Your task to perform on an android device: change timer sound Image 0: 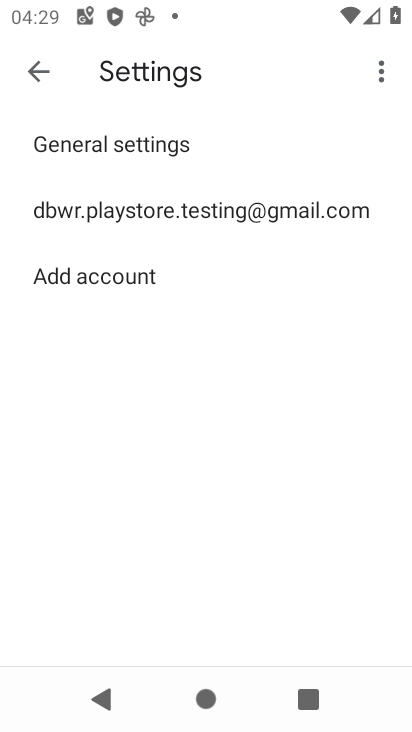
Step 0: press home button
Your task to perform on an android device: change timer sound Image 1: 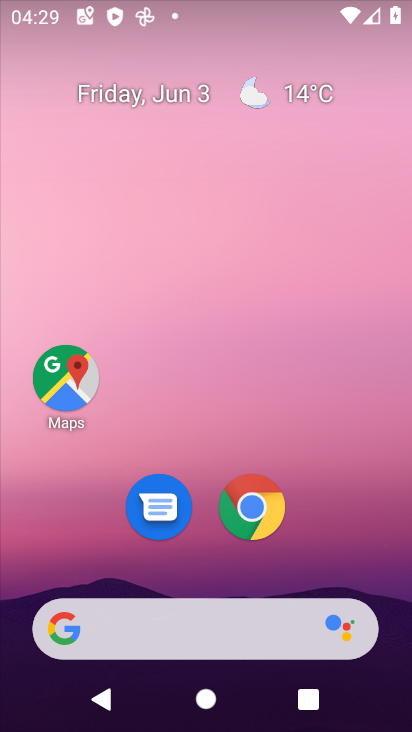
Step 1: drag from (348, 545) to (270, 24)
Your task to perform on an android device: change timer sound Image 2: 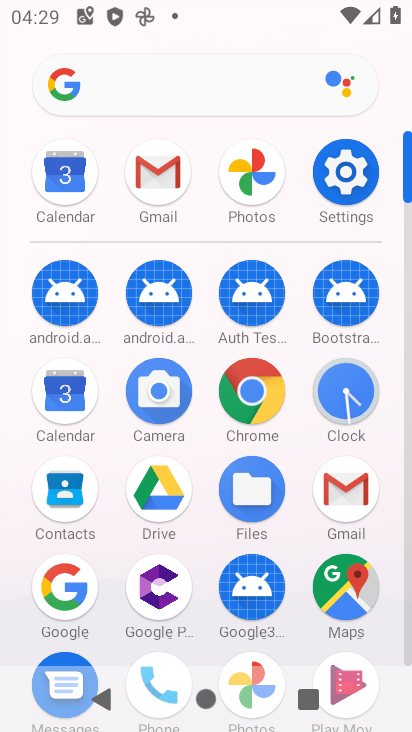
Step 2: click (348, 400)
Your task to perform on an android device: change timer sound Image 3: 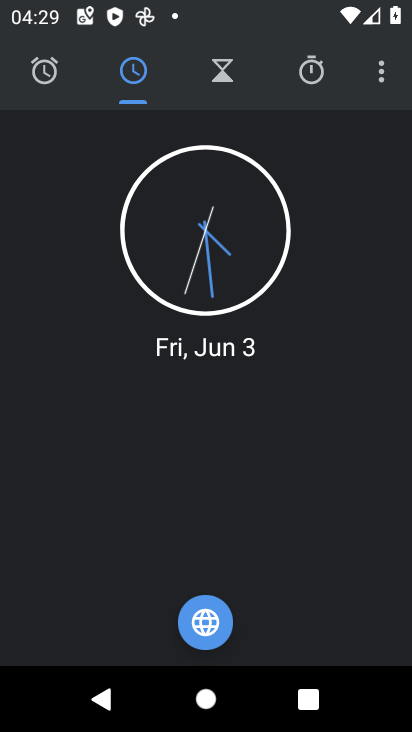
Step 3: click (375, 62)
Your task to perform on an android device: change timer sound Image 4: 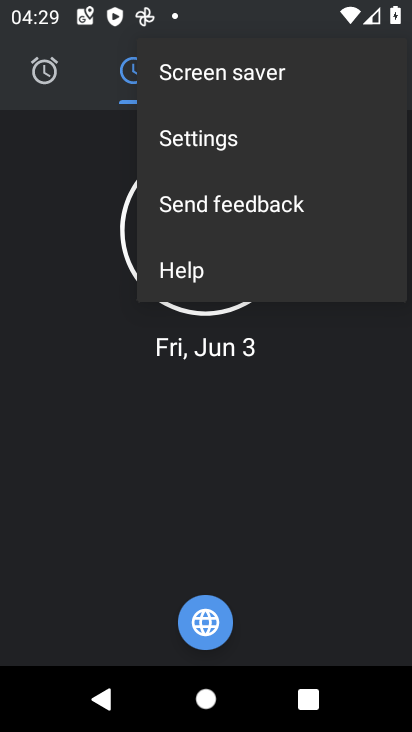
Step 4: click (211, 143)
Your task to perform on an android device: change timer sound Image 5: 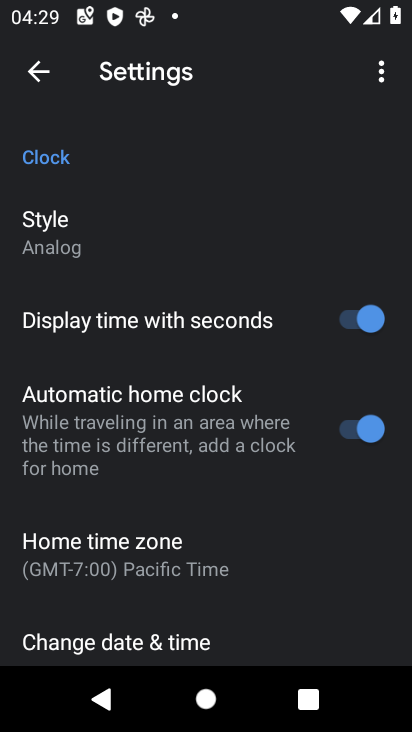
Step 5: drag from (311, 579) to (267, 139)
Your task to perform on an android device: change timer sound Image 6: 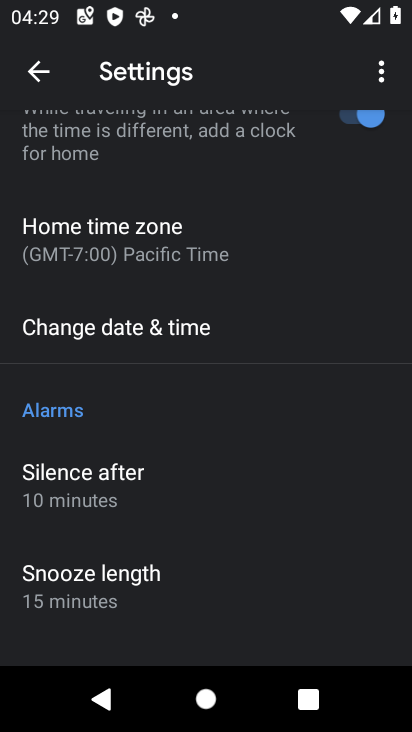
Step 6: drag from (325, 596) to (243, 22)
Your task to perform on an android device: change timer sound Image 7: 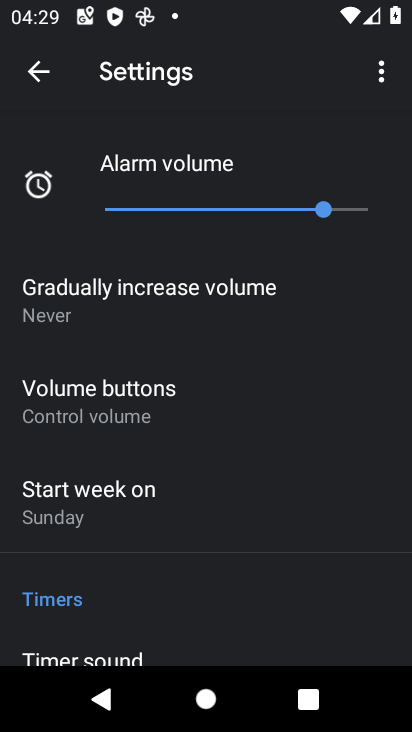
Step 7: click (232, 648)
Your task to perform on an android device: change timer sound Image 8: 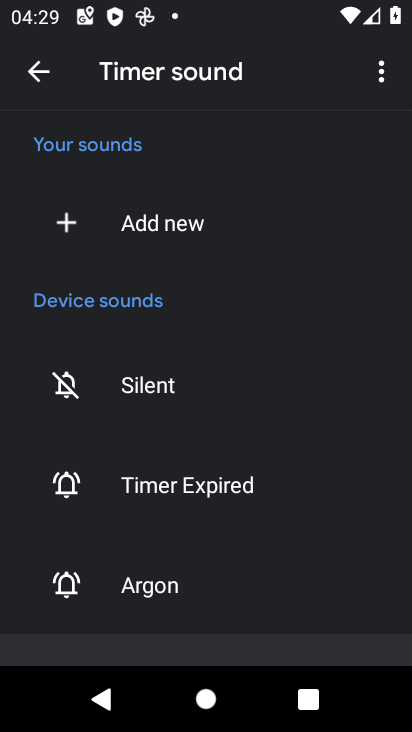
Step 8: click (136, 597)
Your task to perform on an android device: change timer sound Image 9: 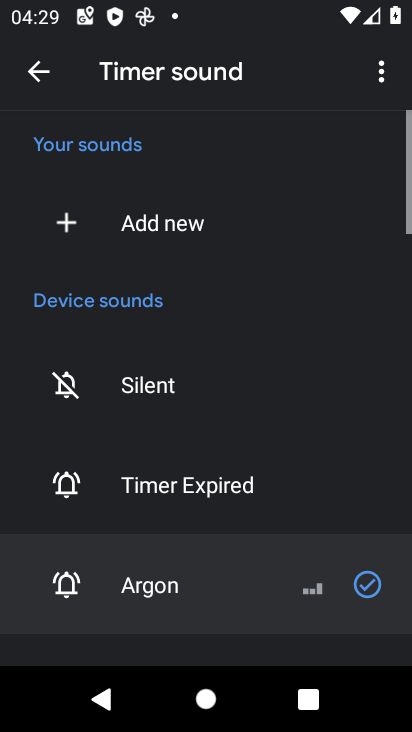
Step 9: task complete